Your task to perform on an android device: Open location settings Image 0: 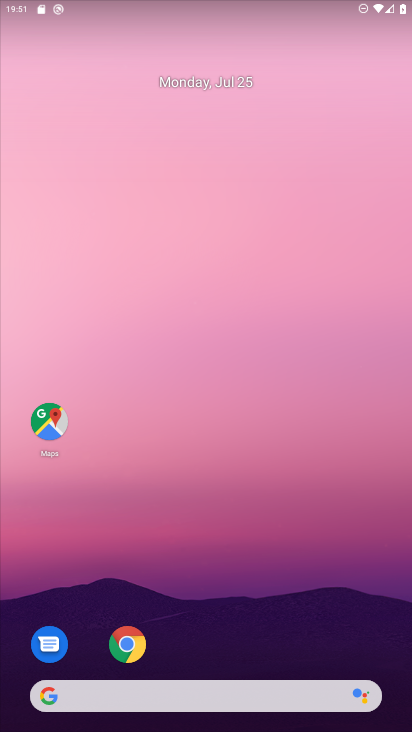
Step 0: drag from (239, 657) to (221, 108)
Your task to perform on an android device: Open location settings Image 1: 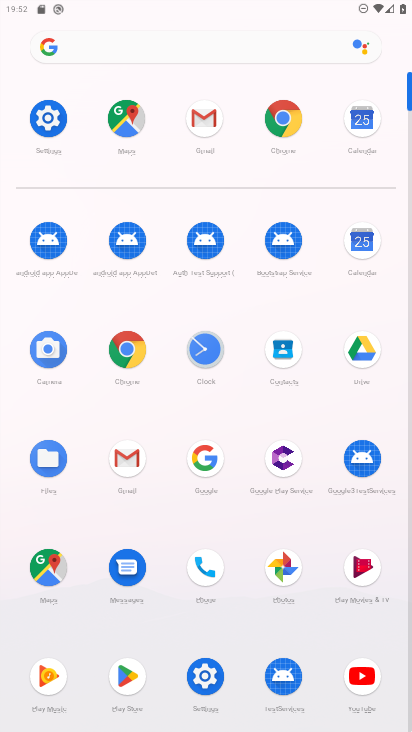
Step 1: click (44, 110)
Your task to perform on an android device: Open location settings Image 2: 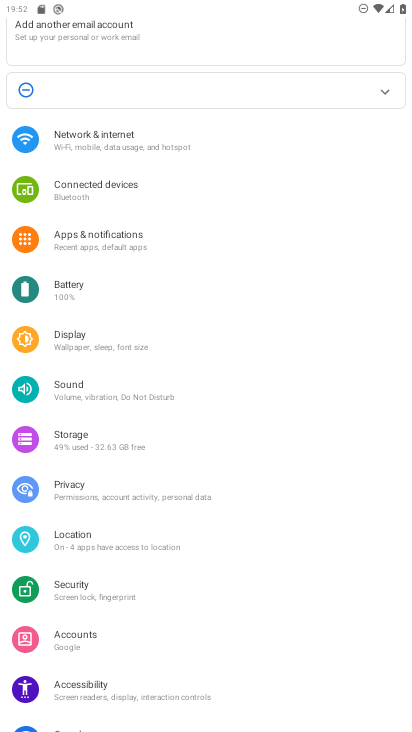
Step 2: click (100, 532)
Your task to perform on an android device: Open location settings Image 3: 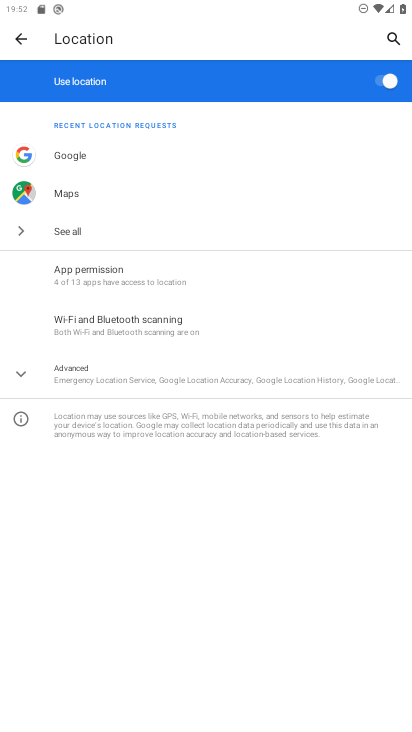
Step 3: click (31, 367)
Your task to perform on an android device: Open location settings Image 4: 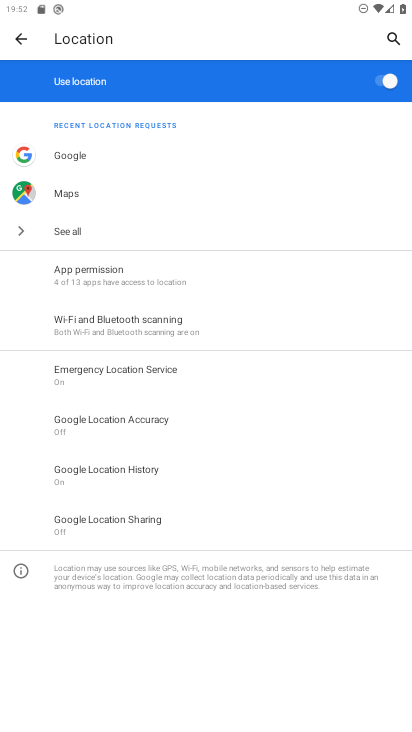
Step 4: task complete